Your task to perform on an android device: Go to notification settings Image 0: 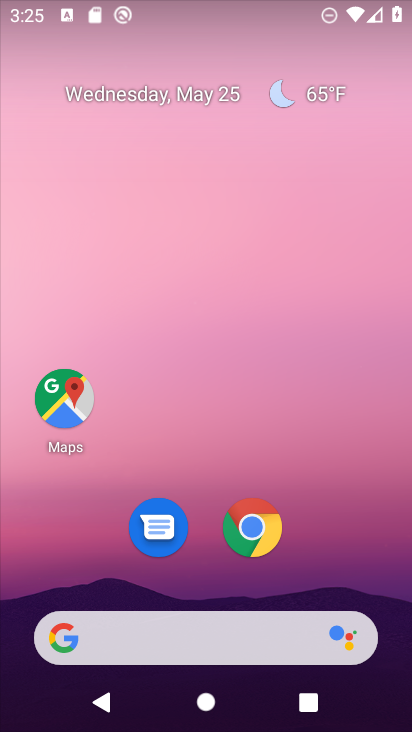
Step 0: drag from (342, 632) to (335, 3)
Your task to perform on an android device: Go to notification settings Image 1: 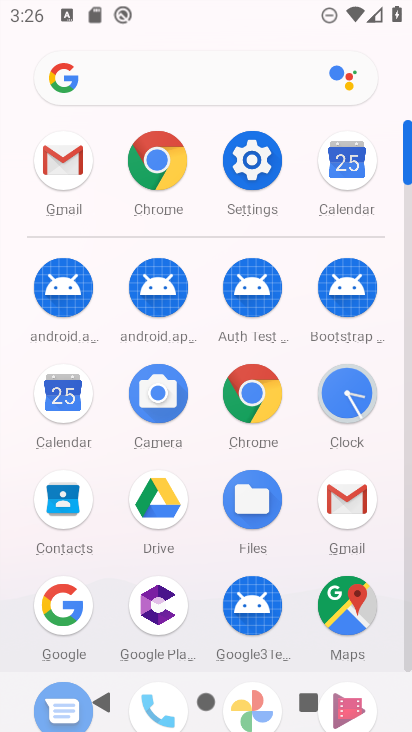
Step 1: click (254, 160)
Your task to perform on an android device: Go to notification settings Image 2: 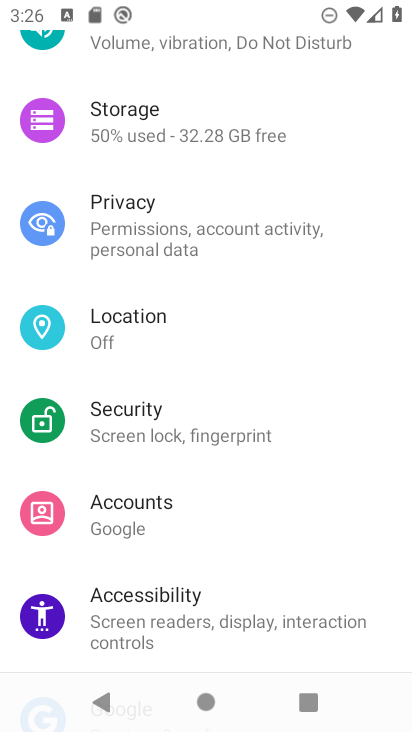
Step 2: drag from (254, 160) to (270, 641)
Your task to perform on an android device: Go to notification settings Image 3: 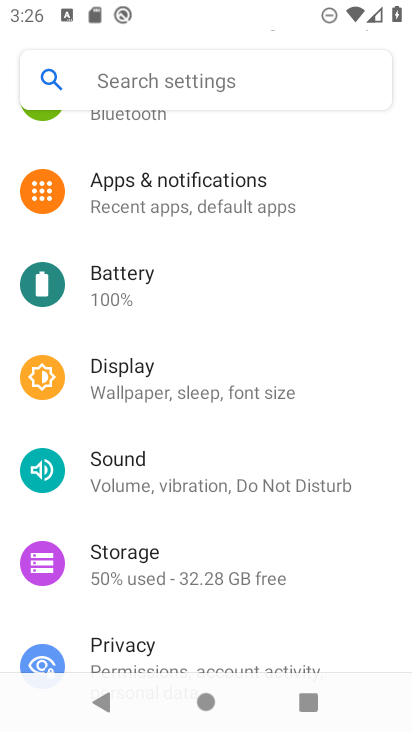
Step 3: click (225, 194)
Your task to perform on an android device: Go to notification settings Image 4: 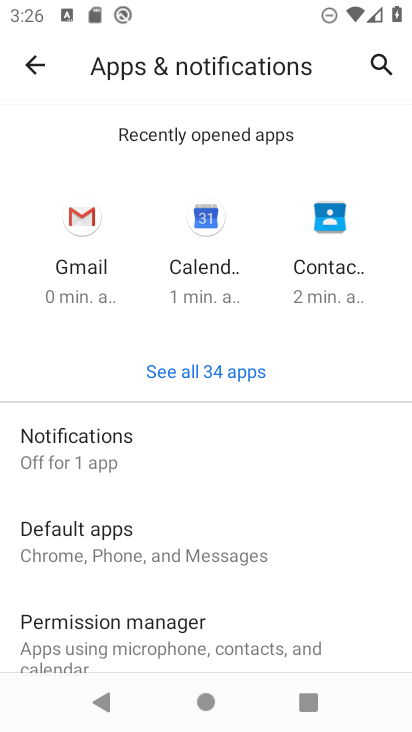
Step 4: task complete